Your task to perform on an android device: Open Google Chrome Image 0: 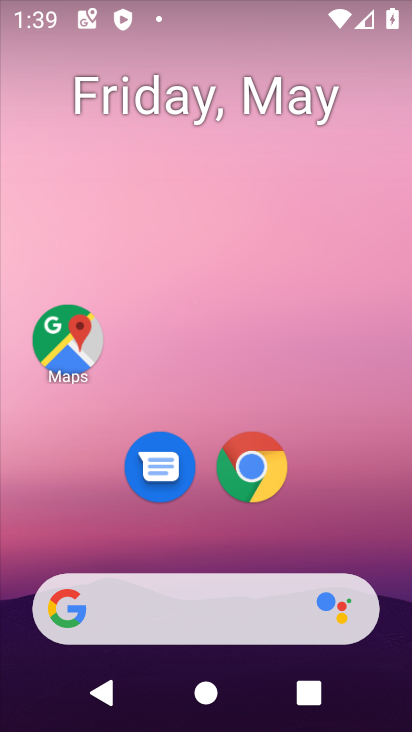
Step 0: drag from (331, 503) to (268, 49)
Your task to perform on an android device: Open Google Chrome Image 1: 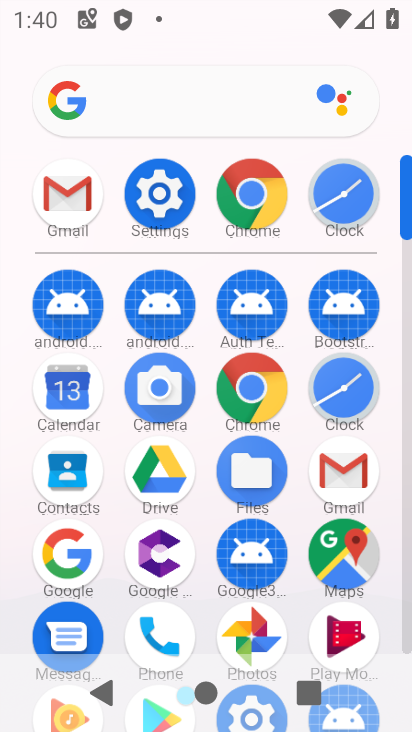
Step 1: click (248, 199)
Your task to perform on an android device: Open Google Chrome Image 2: 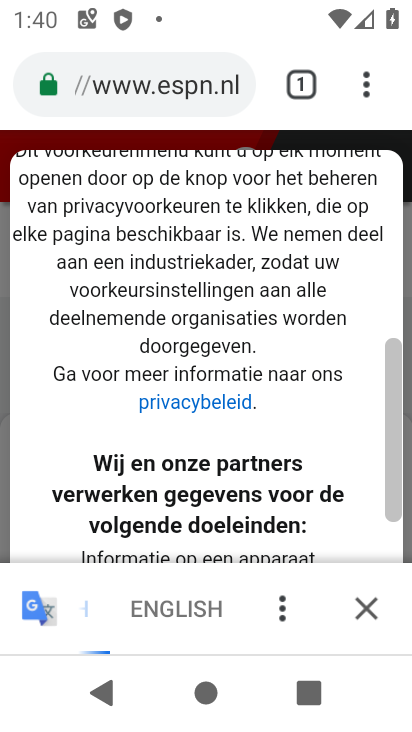
Step 2: task complete